Your task to perform on an android device: see creations saved in the google photos Image 0: 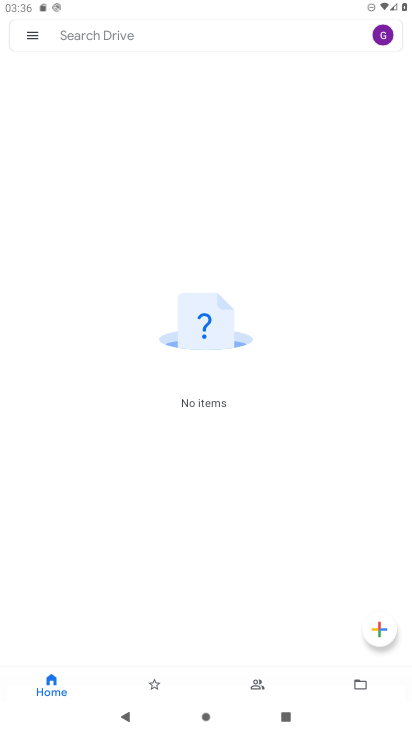
Step 0: press home button
Your task to perform on an android device: see creations saved in the google photos Image 1: 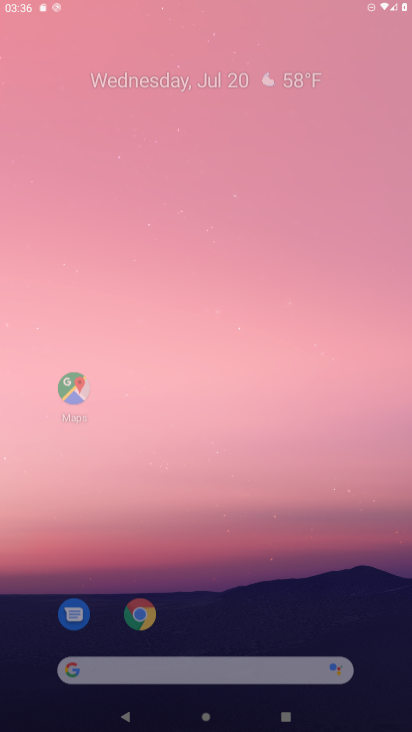
Step 1: drag from (246, 640) to (307, 28)
Your task to perform on an android device: see creations saved in the google photos Image 2: 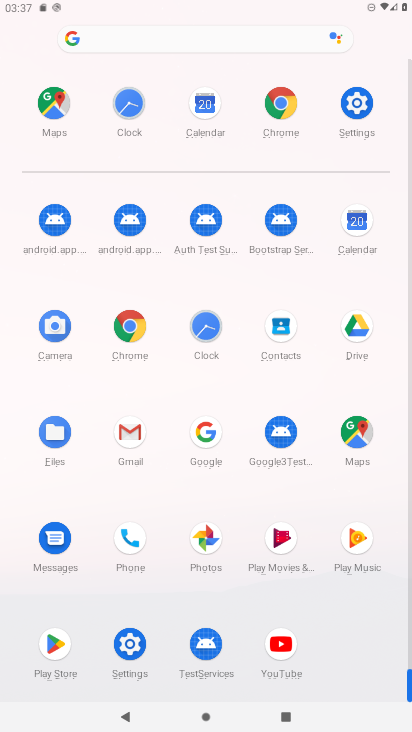
Step 2: click (208, 542)
Your task to perform on an android device: see creations saved in the google photos Image 3: 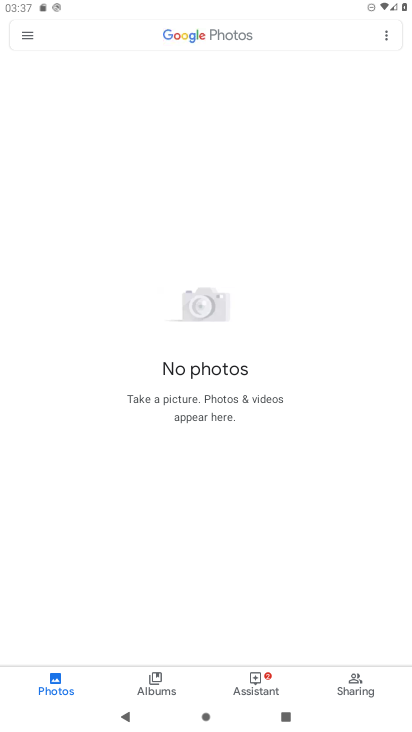
Step 3: click (216, 34)
Your task to perform on an android device: see creations saved in the google photos Image 4: 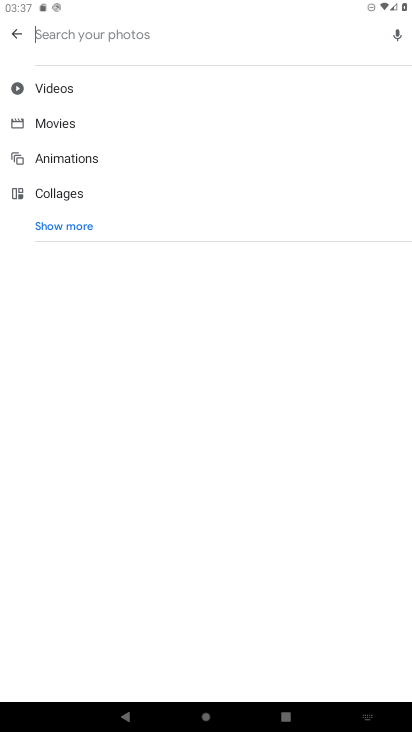
Step 4: click (84, 228)
Your task to perform on an android device: see creations saved in the google photos Image 5: 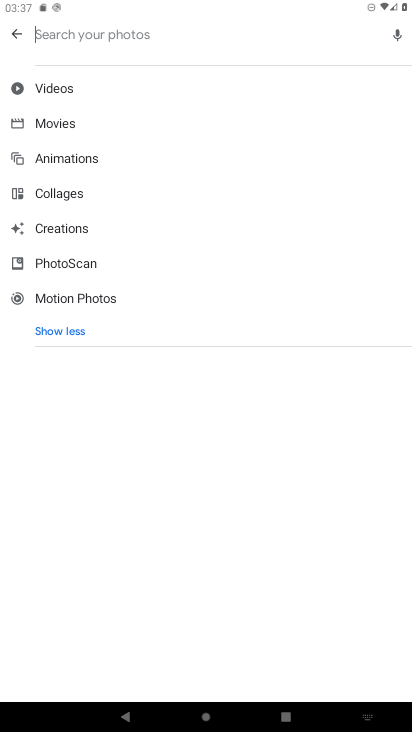
Step 5: click (84, 228)
Your task to perform on an android device: see creations saved in the google photos Image 6: 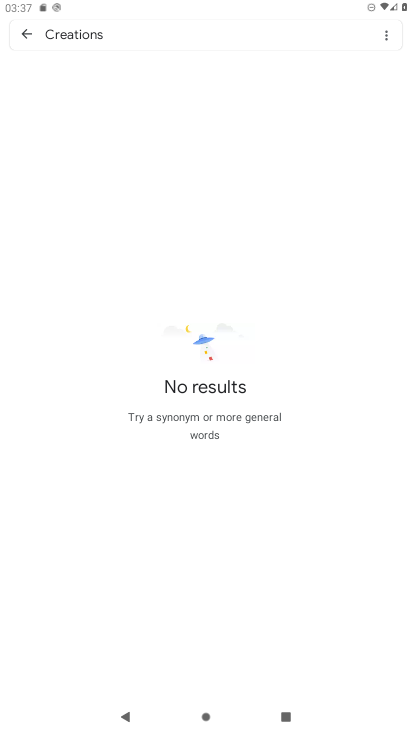
Step 6: task complete